Your task to perform on an android device: change the clock display to analog Image 0: 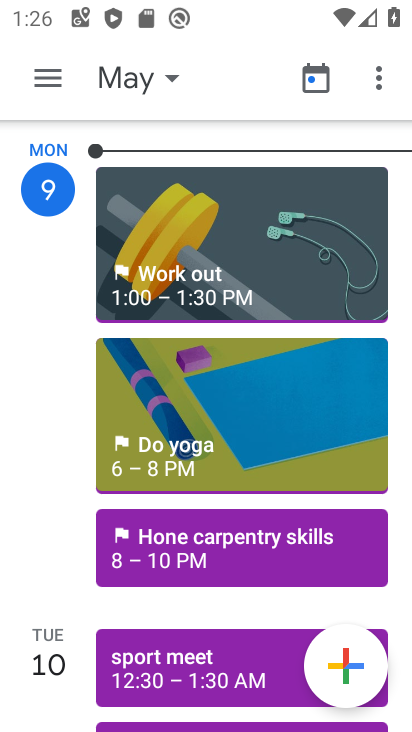
Step 0: press home button
Your task to perform on an android device: change the clock display to analog Image 1: 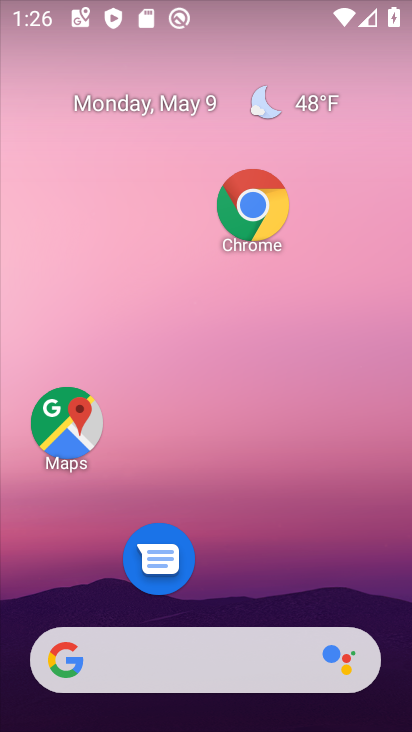
Step 1: drag from (367, 440) to (403, 255)
Your task to perform on an android device: change the clock display to analog Image 2: 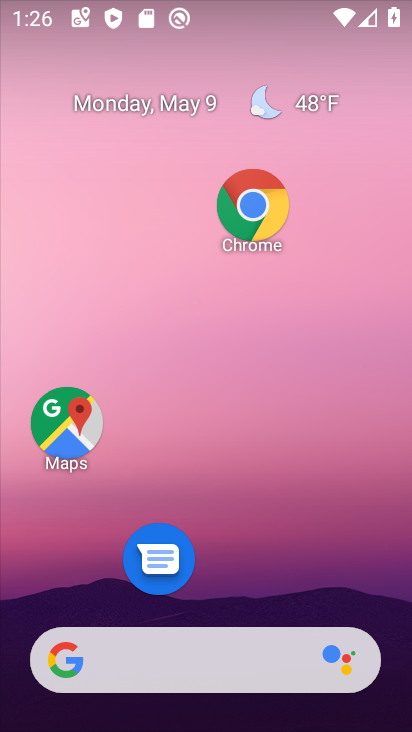
Step 2: drag from (294, 522) to (347, 158)
Your task to perform on an android device: change the clock display to analog Image 3: 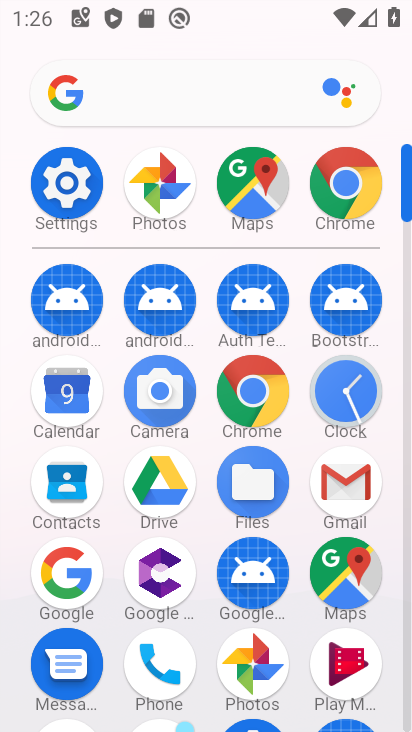
Step 3: click (331, 404)
Your task to perform on an android device: change the clock display to analog Image 4: 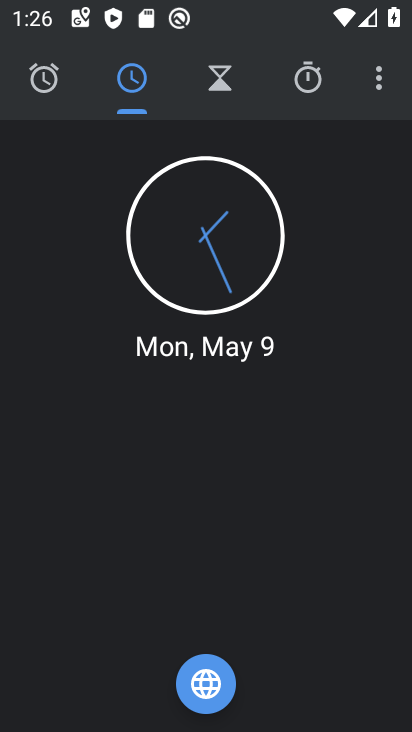
Step 4: click (374, 80)
Your task to perform on an android device: change the clock display to analog Image 5: 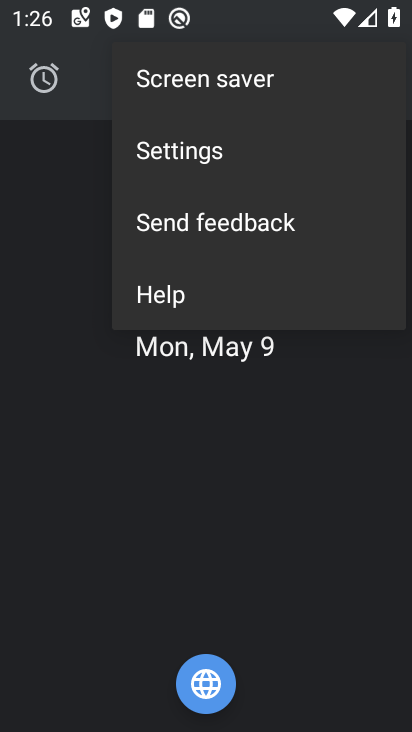
Step 5: click (146, 160)
Your task to perform on an android device: change the clock display to analog Image 6: 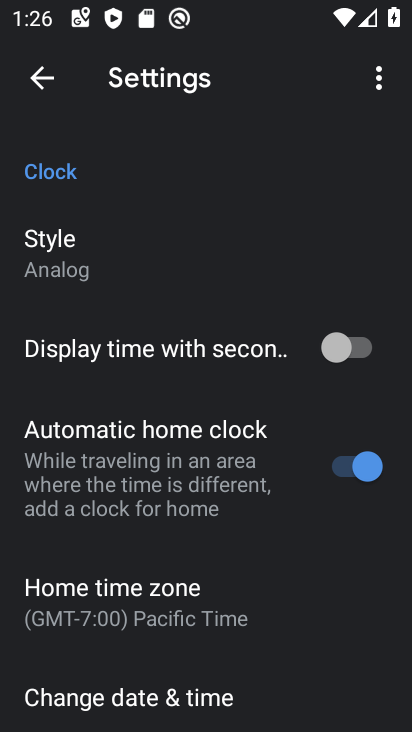
Step 6: click (89, 255)
Your task to perform on an android device: change the clock display to analog Image 7: 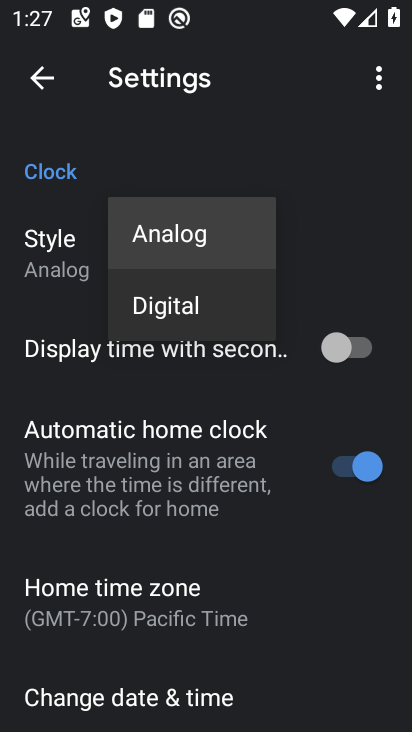
Step 7: click (157, 317)
Your task to perform on an android device: change the clock display to analog Image 8: 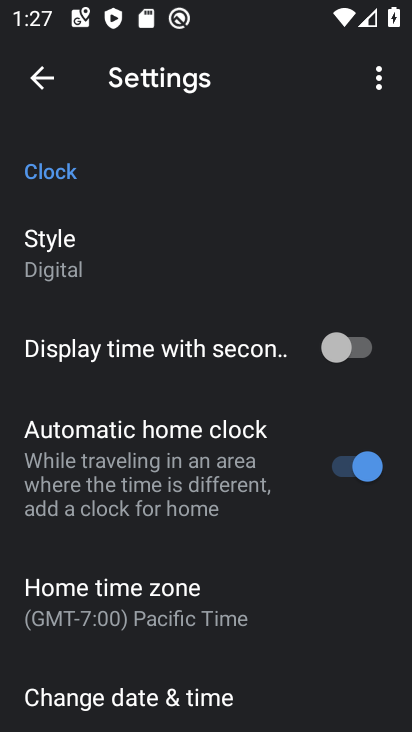
Step 8: task complete